Your task to perform on an android device: turn on priority inbox in the gmail app Image 0: 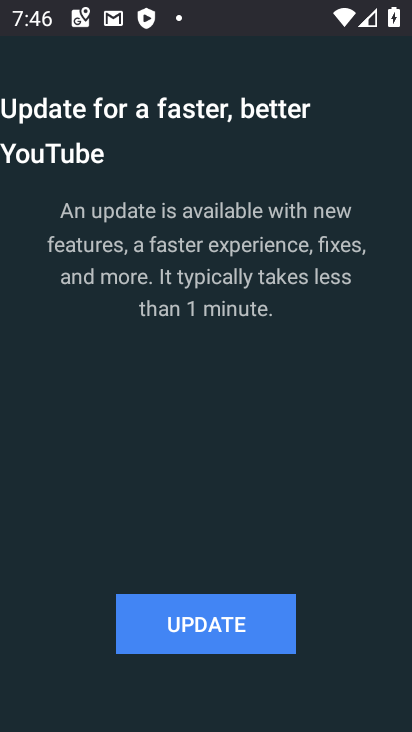
Step 0: press back button
Your task to perform on an android device: turn on priority inbox in the gmail app Image 1: 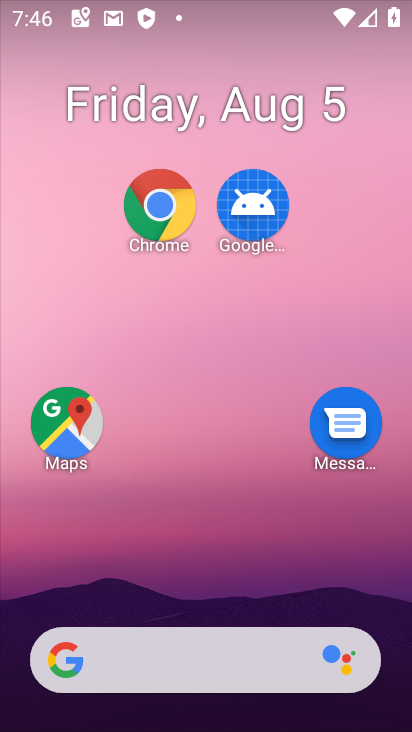
Step 1: drag from (191, 595) to (409, 4)
Your task to perform on an android device: turn on priority inbox in the gmail app Image 2: 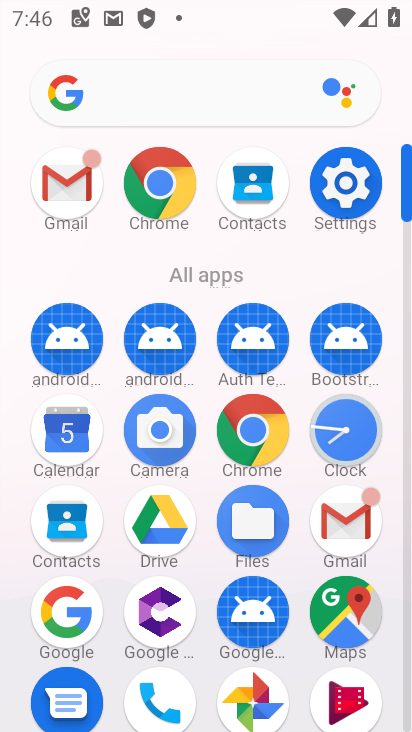
Step 2: click (346, 496)
Your task to perform on an android device: turn on priority inbox in the gmail app Image 3: 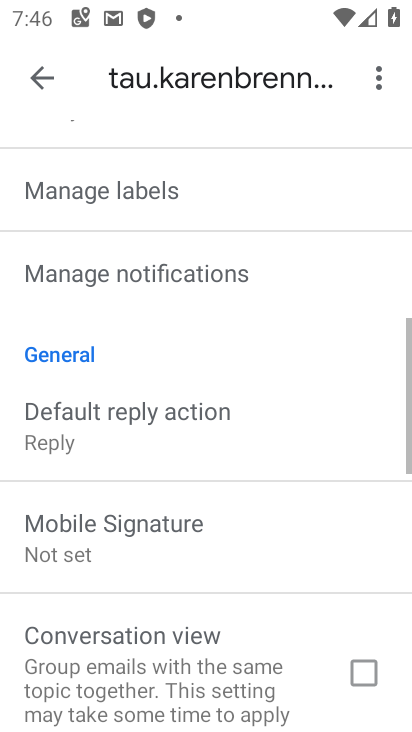
Step 3: click (402, 496)
Your task to perform on an android device: turn on priority inbox in the gmail app Image 4: 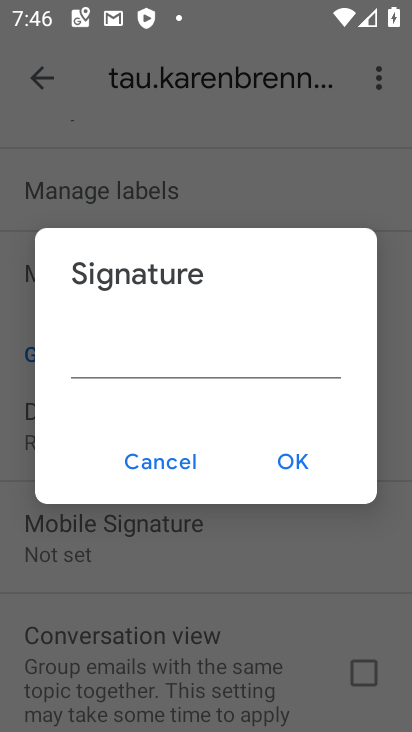
Step 4: click (130, 472)
Your task to perform on an android device: turn on priority inbox in the gmail app Image 5: 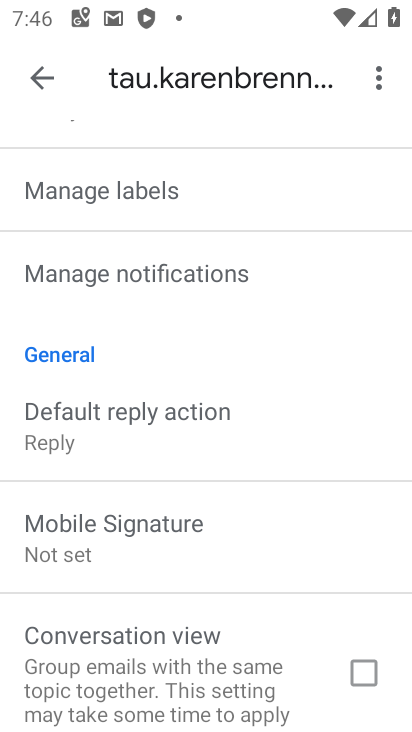
Step 5: drag from (230, 235) to (191, 714)
Your task to perform on an android device: turn on priority inbox in the gmail app Image 6: 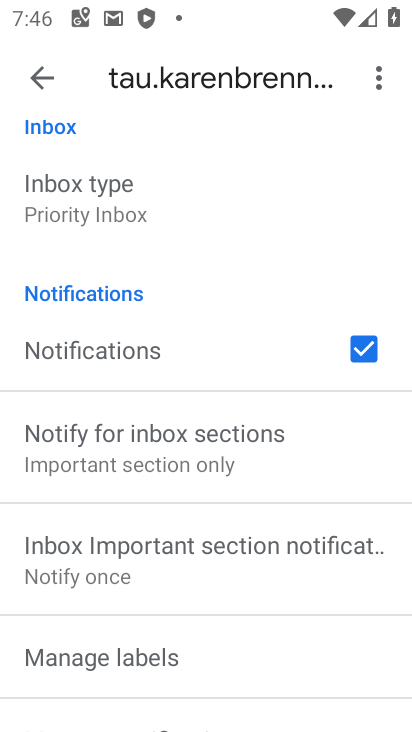
Step 6: click (137, 196)
Your task to perform on an android device: turn on priority inbox in the gmail app Image 7: 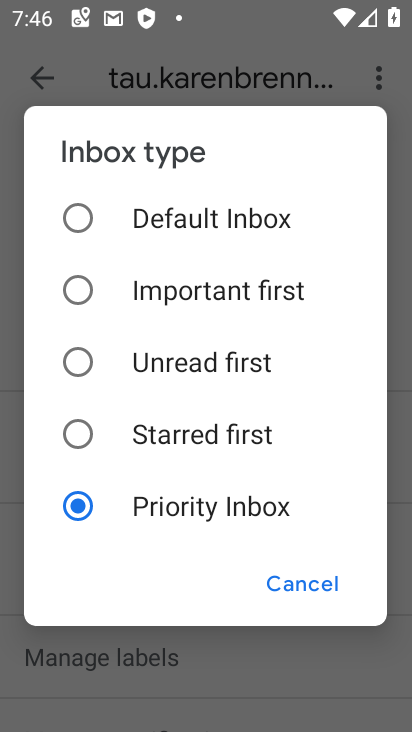
Step 7: click (92, 504)
Your task to perform on an android device: turn on priority inbox in the gmail app Image 8: 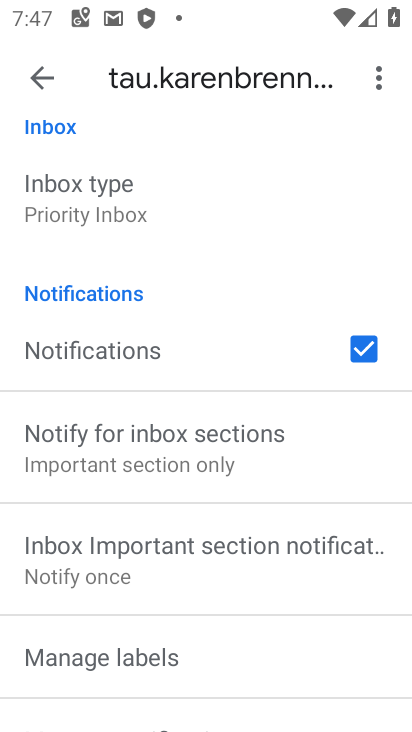
Step 8: task complete